Your task to perform on an android device: uninstall "The Home Depot" Image 0: 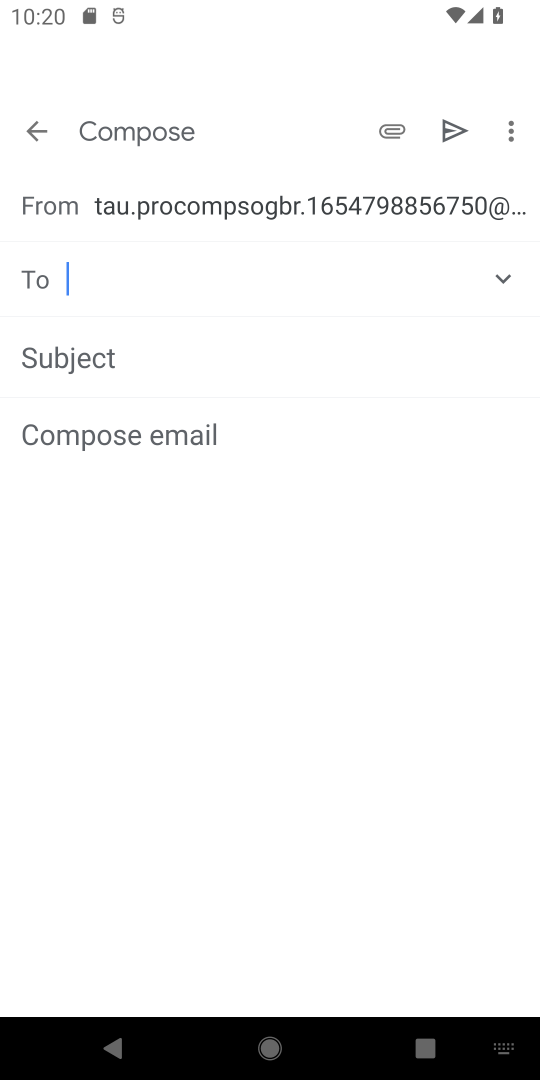
Step 0: press home button
Your task to perform on an android device: uninstall "The Home Depot" Image 1: 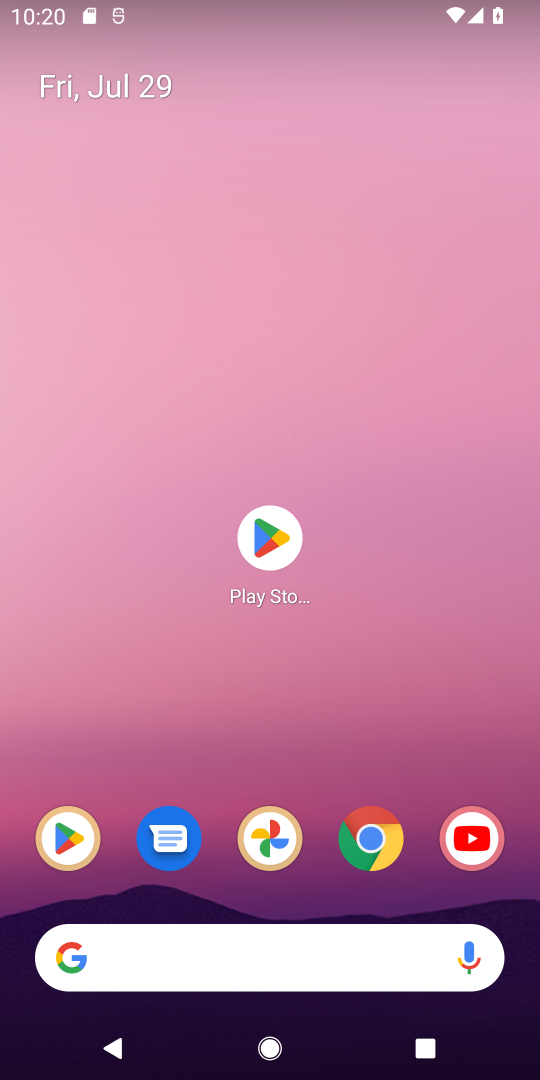
Step 1: click (263, 539)
Your task to perform on an android device: uninstall "The Home Depot" Image 2: 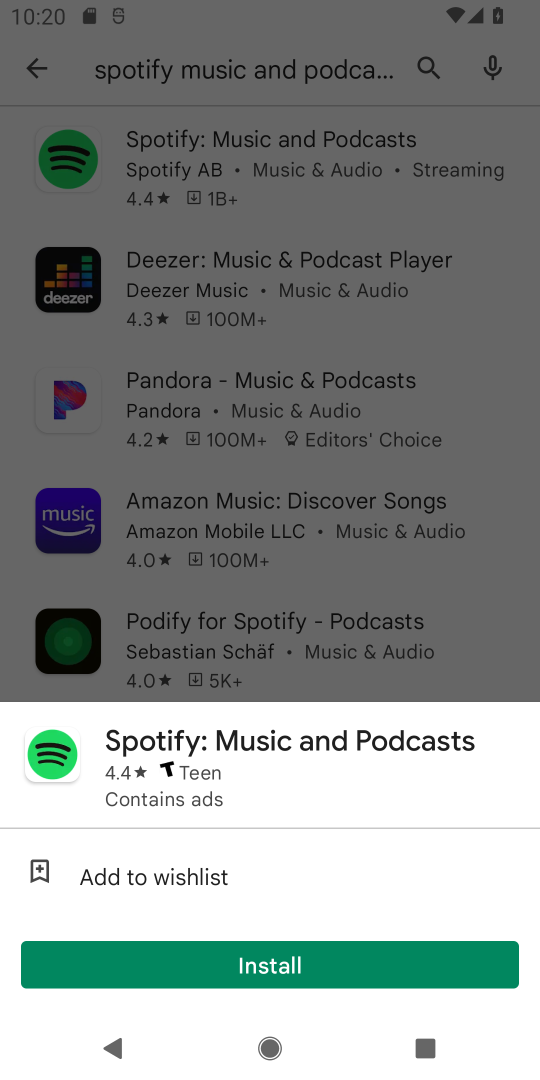
Step 2: click (429, 59)
Your task to perform on an android device: uninstall "The Home Depot" Image 3: 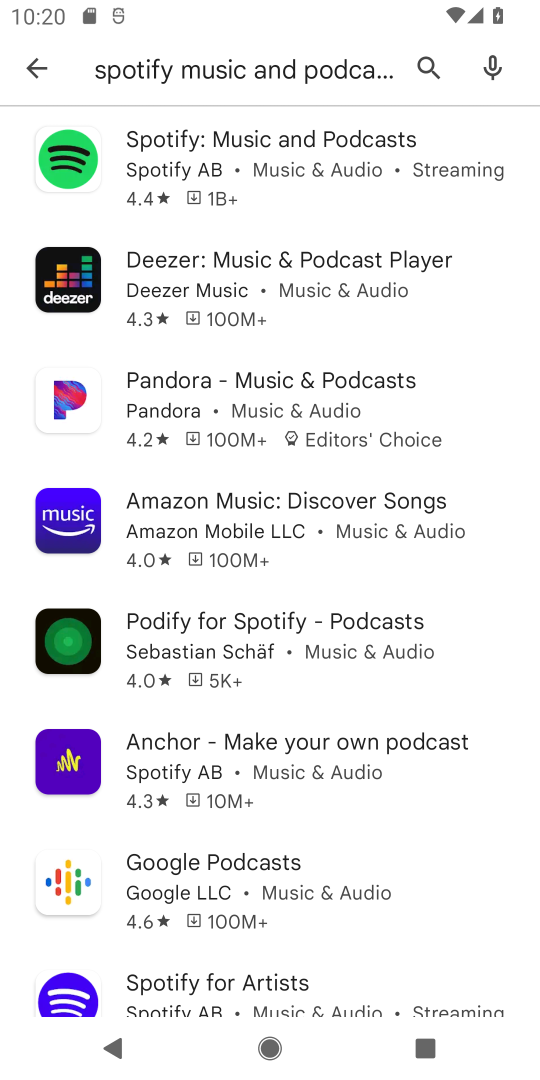
Step 3: click (426, 72)
Your task to perform on an android device: uninstall "The Home Depot" Image 4: 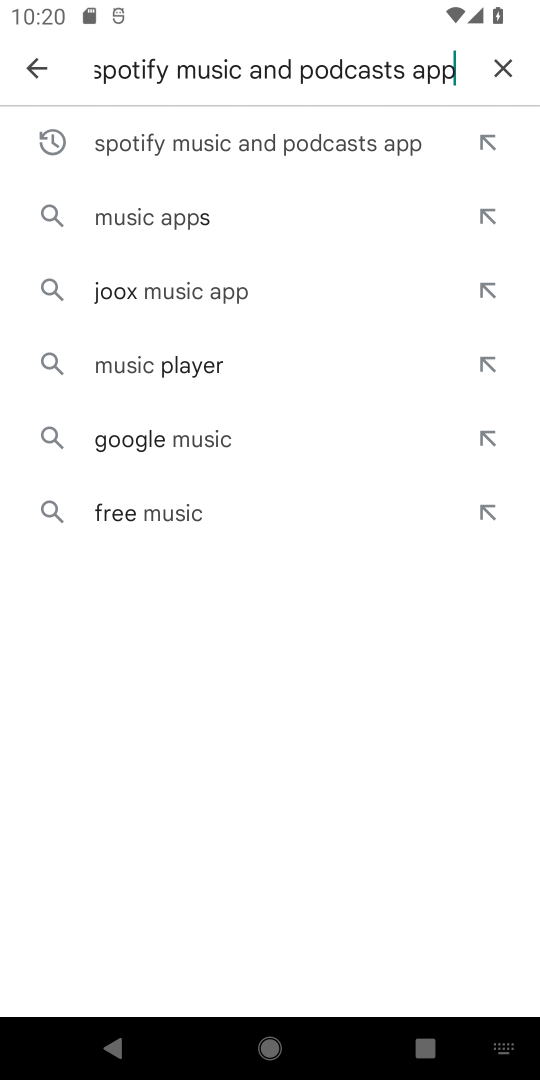
Step 4: click (503, 65)
Your task to perform on an android device: uninstall "The Home Depot" Image 5: 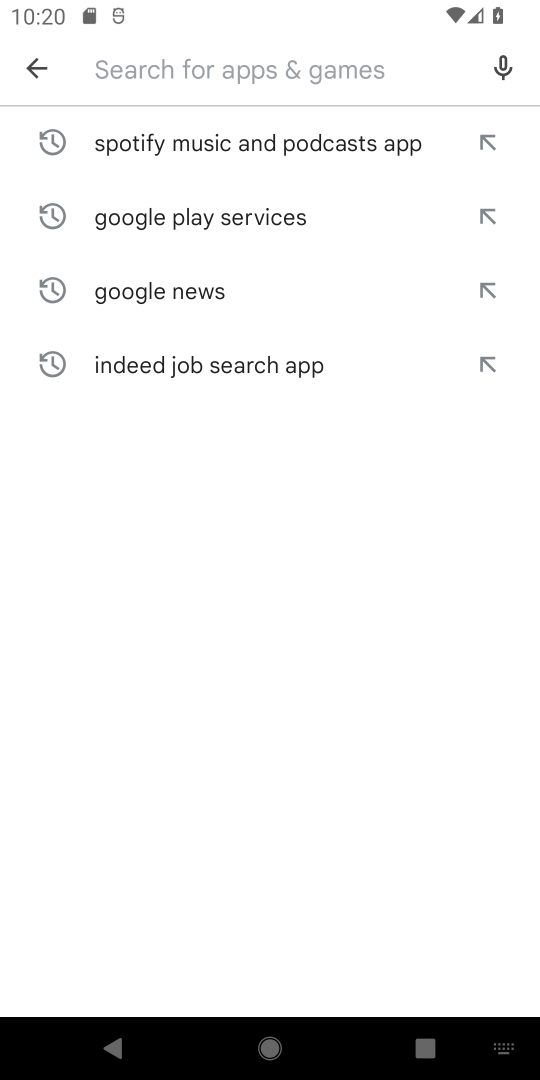
Step 5: type "The Home Depot"
Your task to perform on an android device: uninstall "The Home Depot" Image 6: 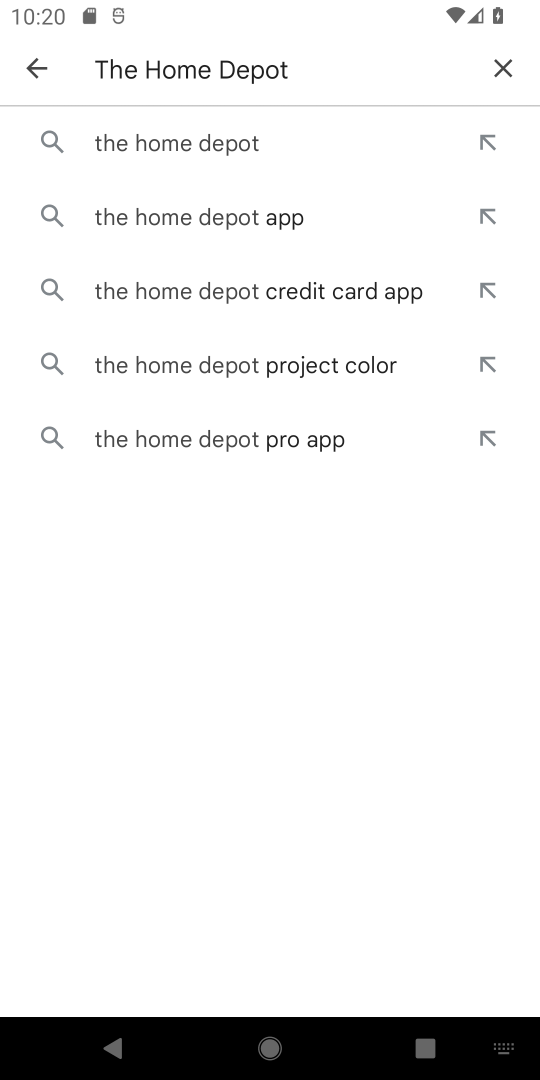
Step 6: click (225, 142)
Your task to perform on an android device: uninstall "The Home Depot" Image 7: 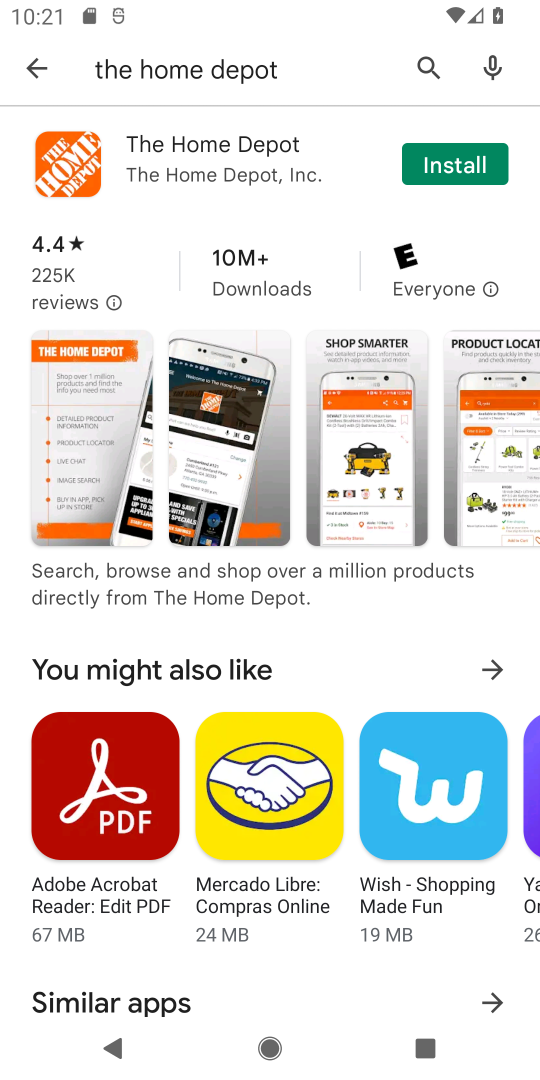
Step 7: task complete